Your task to perform on an android device: change text size in settings app Image 0: 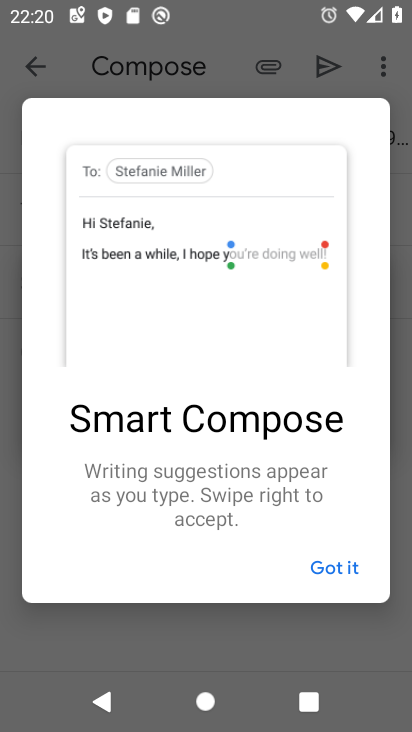
Step 0: press home button
Your task to perform on an android device: change text size in settings app Image 1: 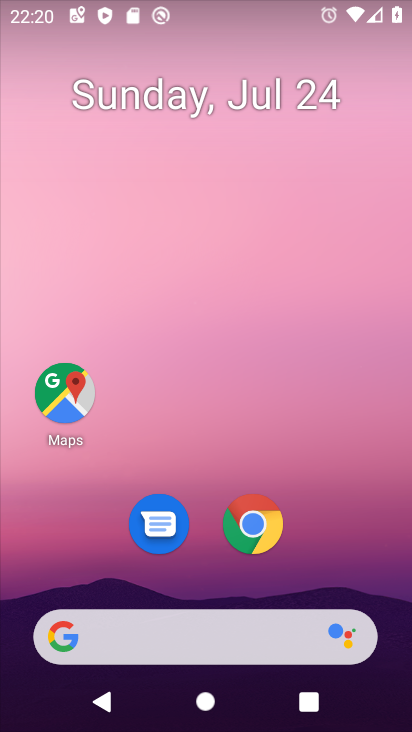
Step 1: drag from (196, 624) to (349, 156)
Your task to perform on an android device: change text size in settings app Image 2: 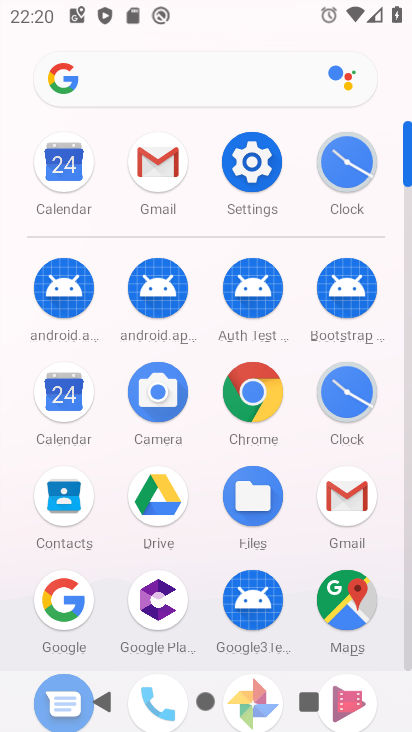
Step 2: click (256, 162)
Your task to perform on an android device: change text size in settings app Image 3: 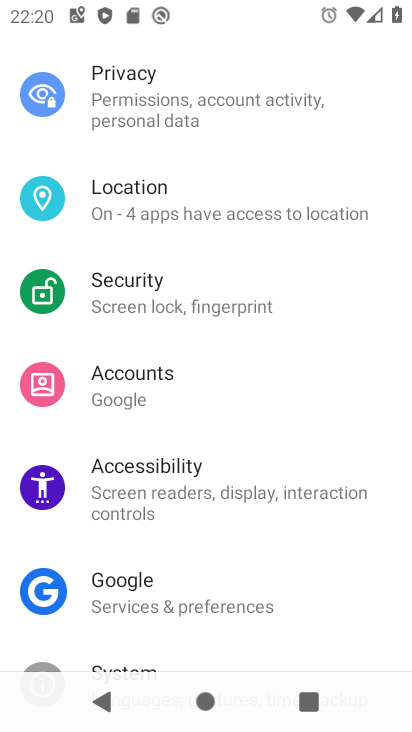
Step 3: drag from (266, 163) to (237, 613)
Your task to perform on an android device: change text size in settings app Image 4: 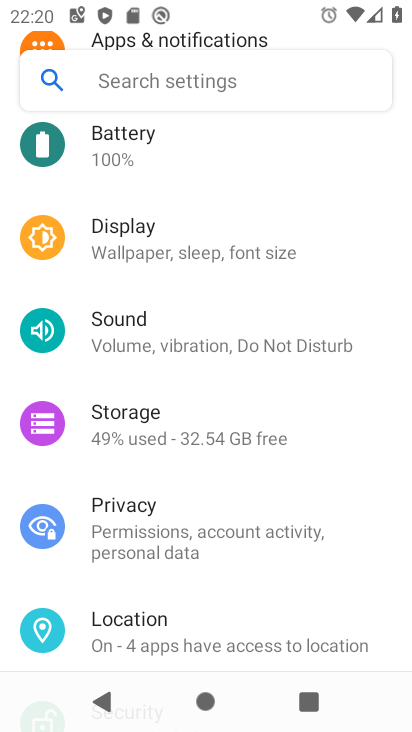
Step 4: drag from (243, 205) to (245, 446)
Your task to perform on an android device: change text size in settings app Image 5: 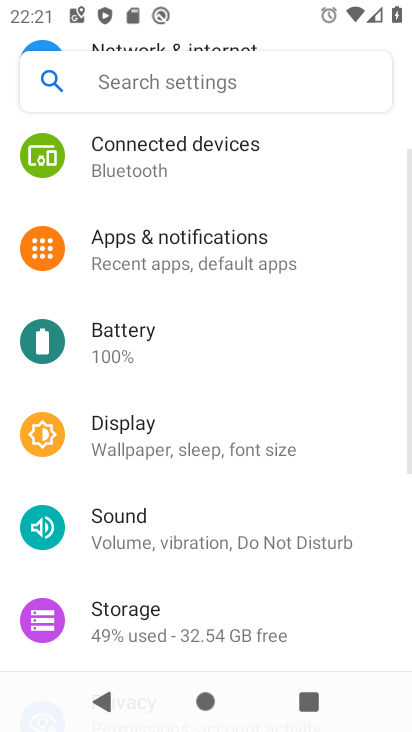
Step 5: click (192, 445)
Your task to perform on an android device: change text size in settings app Image 6: 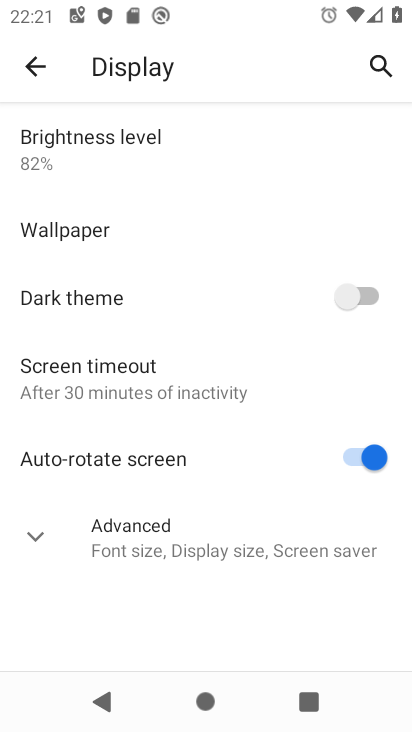
Step 6: click (143, 526)
Your task to perform on an android device: change text size in settings app Image 7: 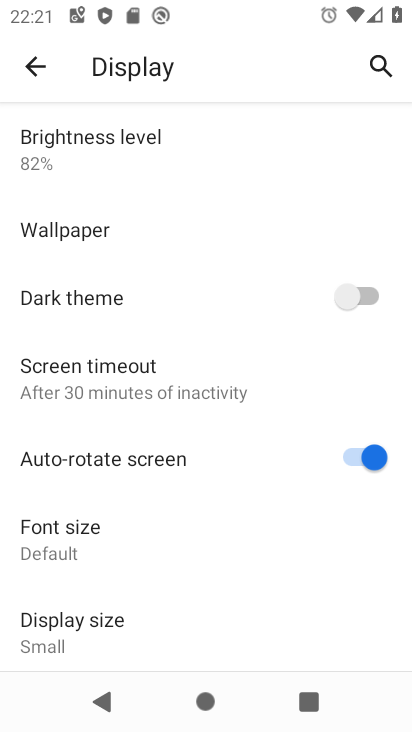
Step 7: click (58, 521)
Your task to perform on an android device: change text size in settings app Image 8: 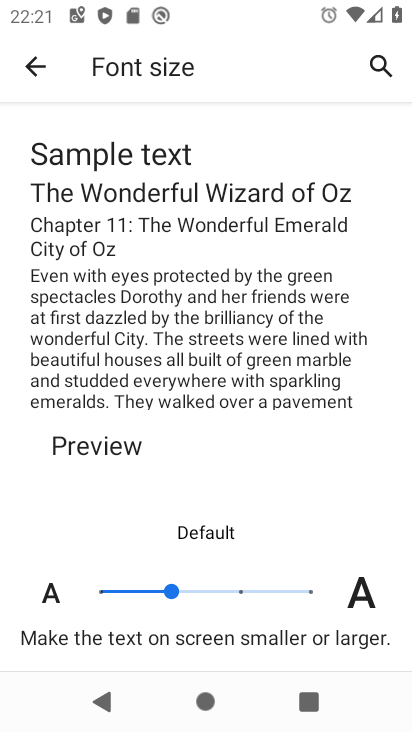
Step 8: click (236, 587)
Your task to perform on an android device: change text size in settings app Image 9: 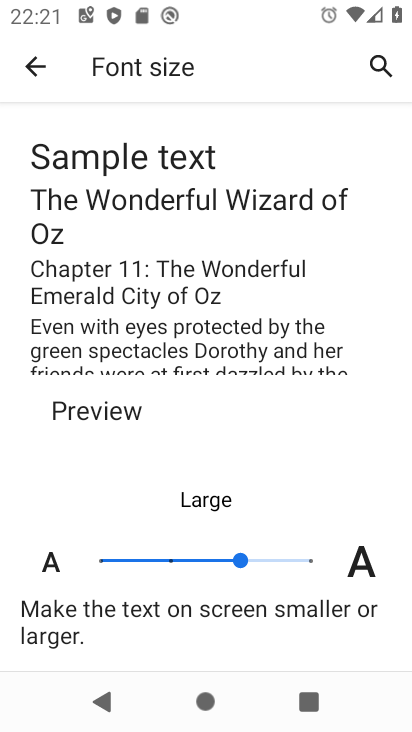
Step 9: task complete